Your task to perform on an android device: Open the calendar app, open the side menu, and click the "Day" option Image 0: 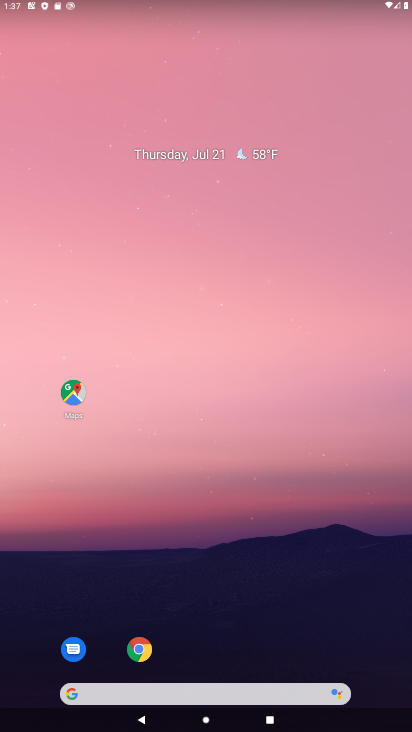
Step 0: drag from (312, 649) to (297, 202)
Your task to perform on an android device: Open the calendar app, open the side menu, and click the "Day" option Image 1: 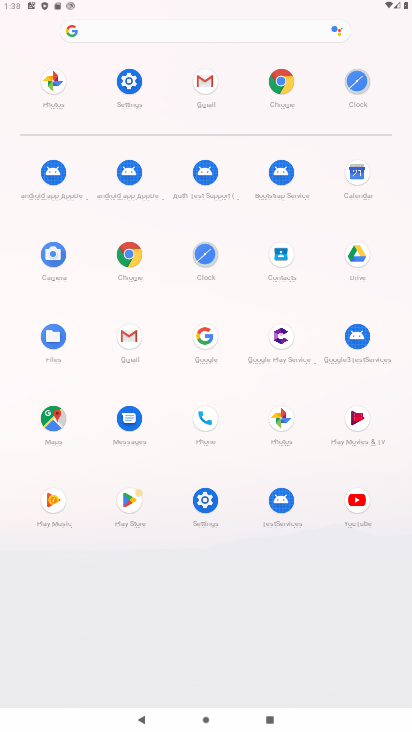
Step 1: click (358, 178)
Your task to perform on an android device: Open the calendar app, open the side menu, and click the "Day" option Image 2: 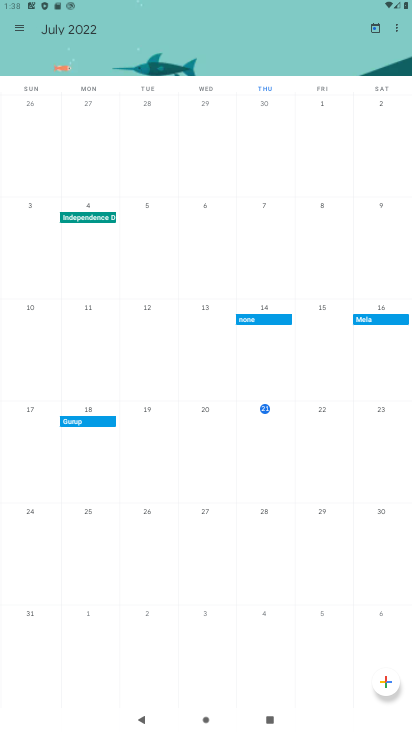
Step 2: click (12, 35)
Your task to perform on an android device: Open the calendar app, open the side menu, and click the "Day" option Image 3: 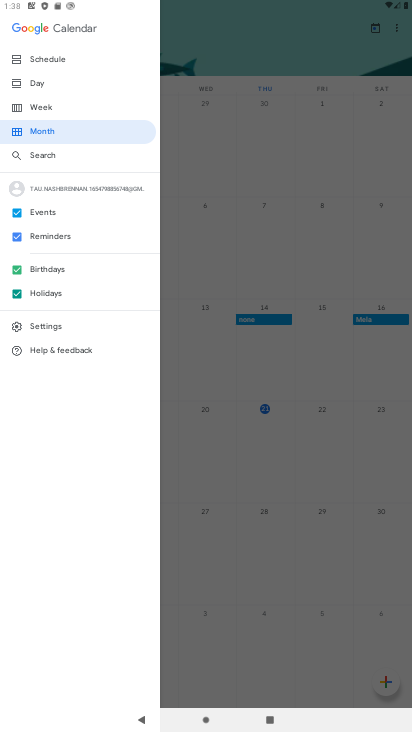
Step 3: click (33, 70)
Your task to perform on an android device: Open the calendar app, open the side menu, and click the "Day" option Image 4: 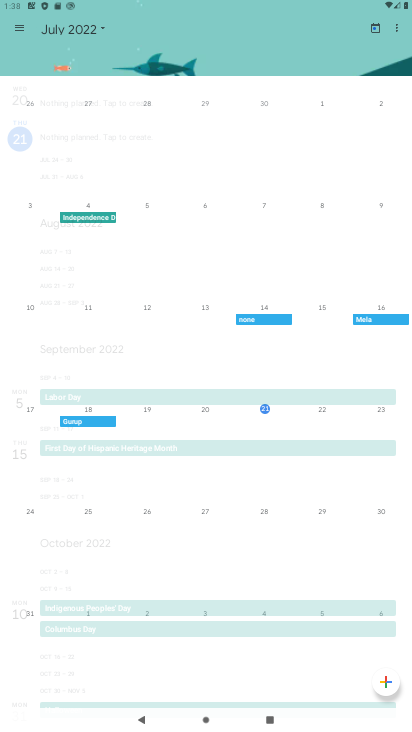
Step 4: task complete